Your task to perform on an android device: Search for a small bookcase on Ikea.com Image 0: 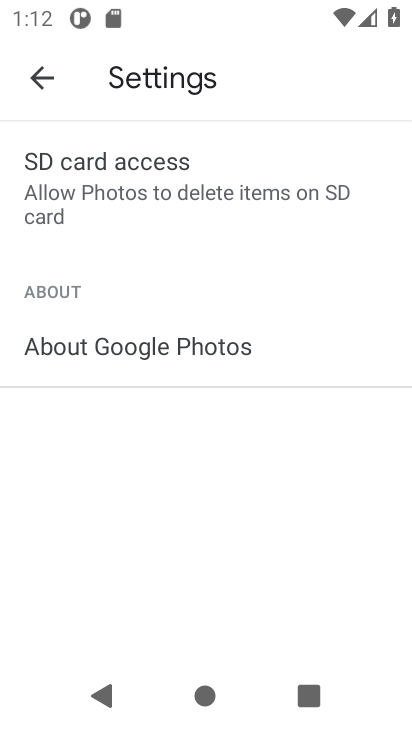
Step 0: press home button
Your task to perform on an android device: Search for a small bookcase on Ikea.com Image 1: 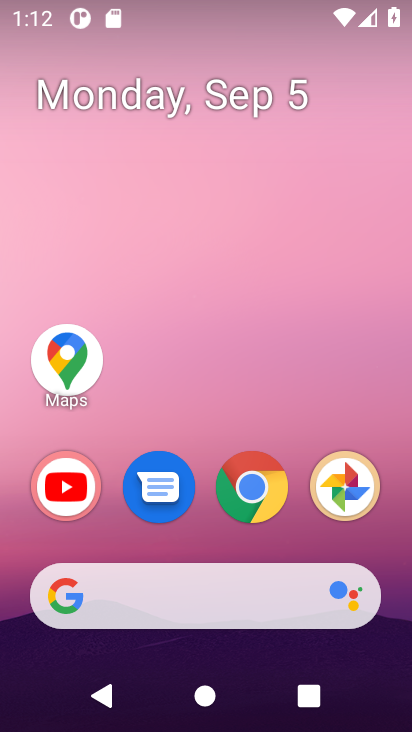
Step 1: click (249, 492)
Your task to perform on an android device: Search for a small bookcase on Ikea.com Image 2: 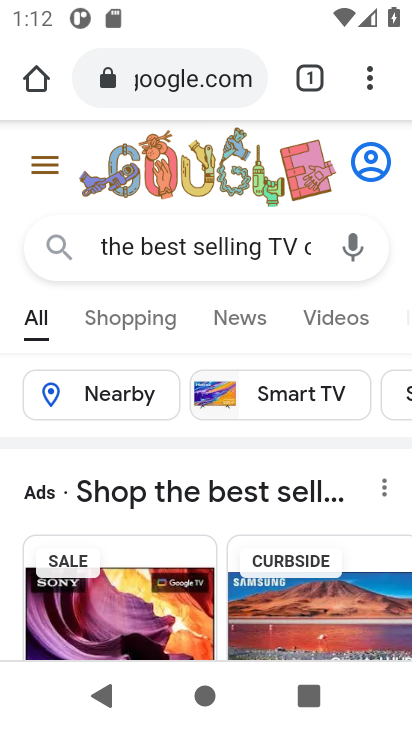
Step 2: click (179, 84)
Your task to perform on an android device: Search for a small bookcase on Ikea.com Image 3: 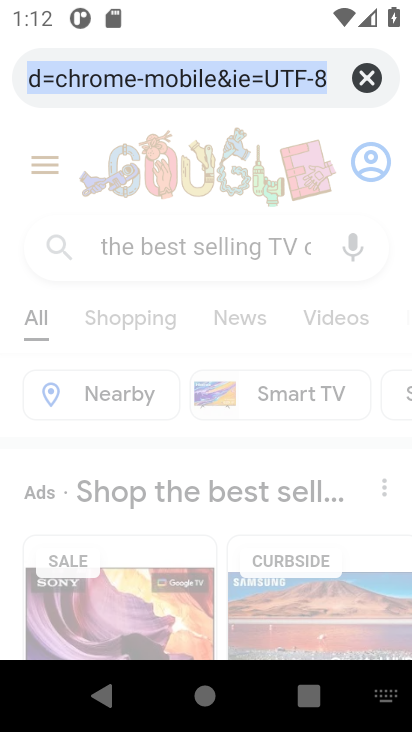
Step 3: click (368, 78)
Your task to perform on an android device: Search for a small bookcase on Ikea.com Image 4: 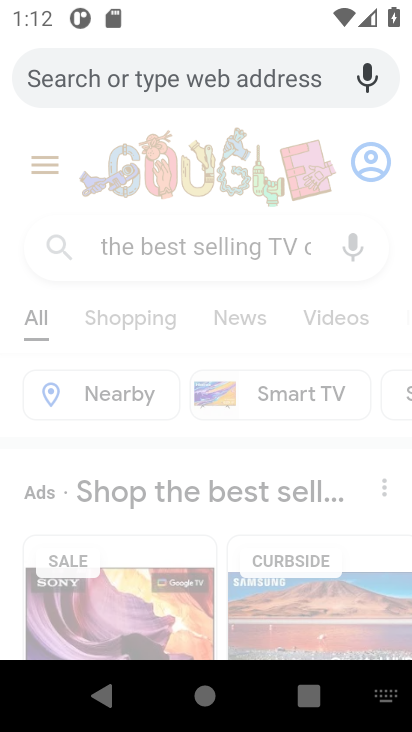
Step 4: type " small bookcase on Ikea.com"
Your task to perform on an android device: Search for a small bookcase on Ikea.com Image 5: 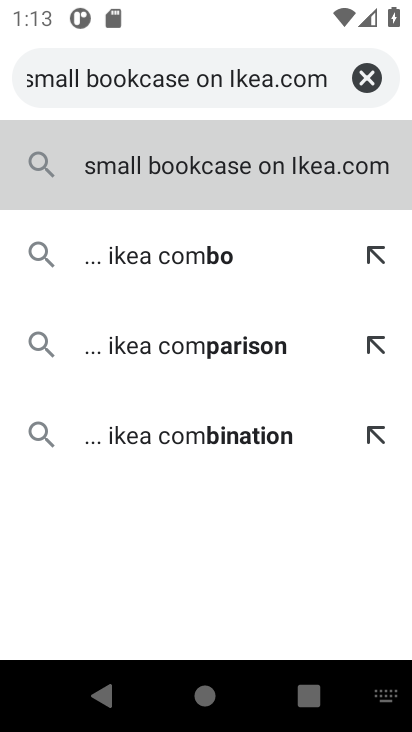
Step 5: click (206, 181)
Your task to perform on an android device: Search for a small bookcase on Ikea.com Image 6: 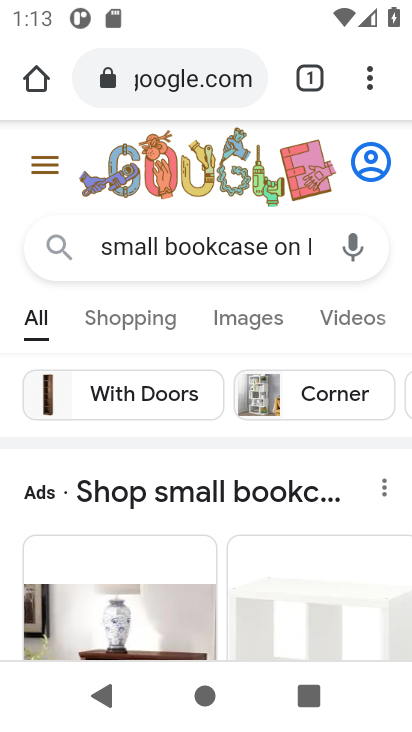
Step 6: task complete